Your task to perform on an android device: Go to accessibility settings Image 0: 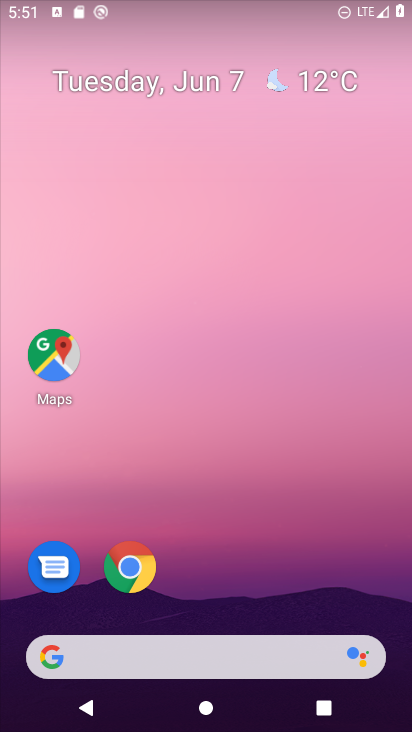
Step 0: drag from (272, 635) to (317, 12)
Your task to perform on an android device: Go to accessibility settings Image 1: 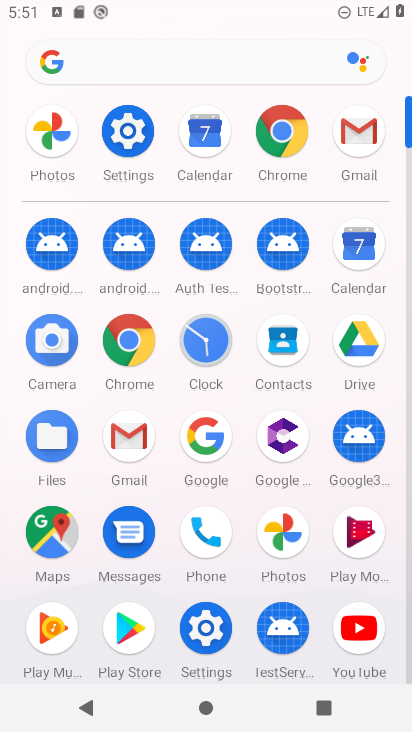
Step 1: click (105, 139)
Your task to perform on an android device: Go to accessibility settings Image 2: 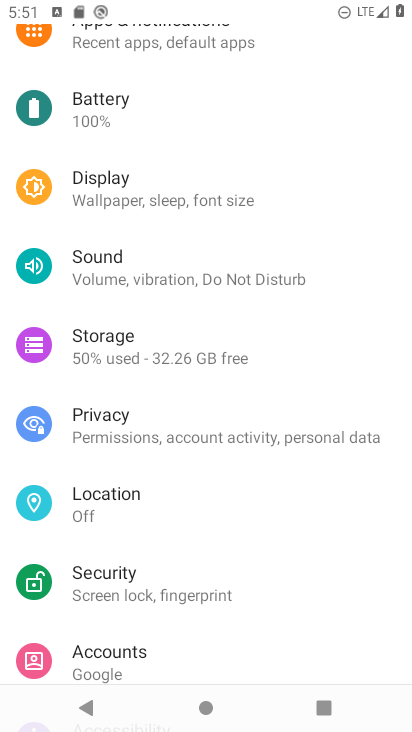
Step 2: drag from (270, 624) to (275, 12)
Your task to perform on an android device: Go to accessibility settings Image 3: 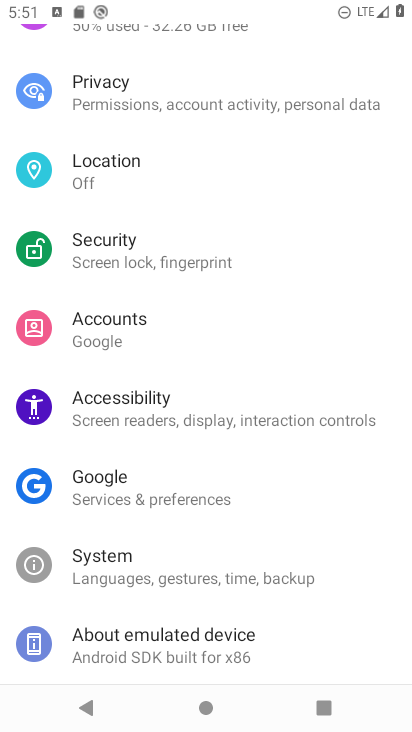
Step 3: click (187, 412)
Your task to perform on an android device: Go to accessibility settings Image 4: 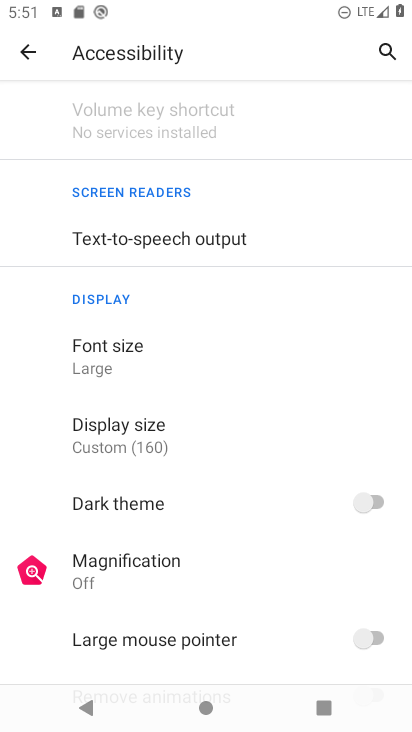
Step 4: task complete